Your task to perform on an android device: Show the shopping cart on newegg.com. Image 0: 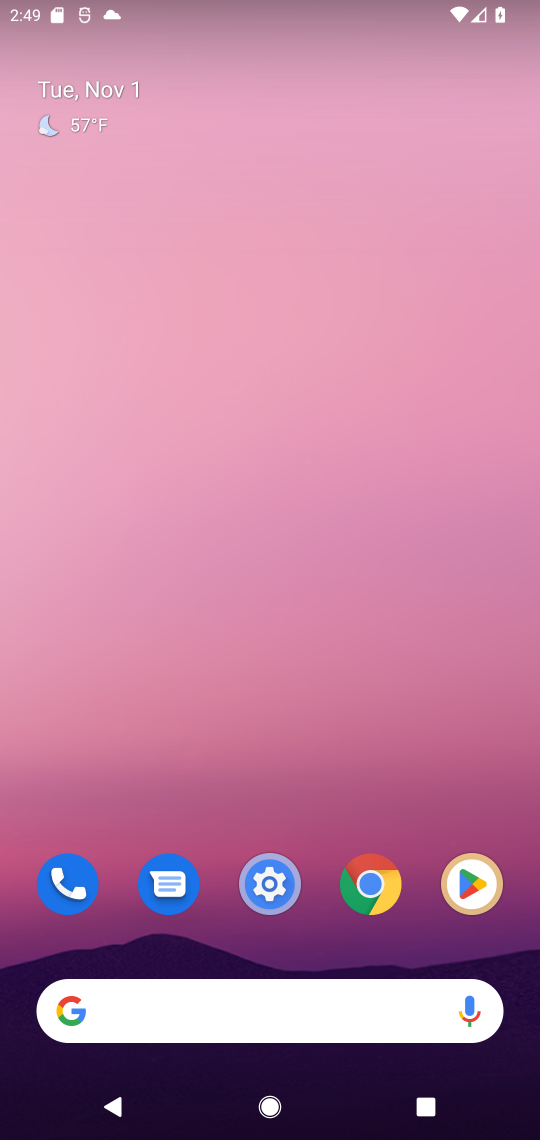
Step 0: press home button
Your task to perform on an android device: Show the shopping cart on newegg.com. Image 1: 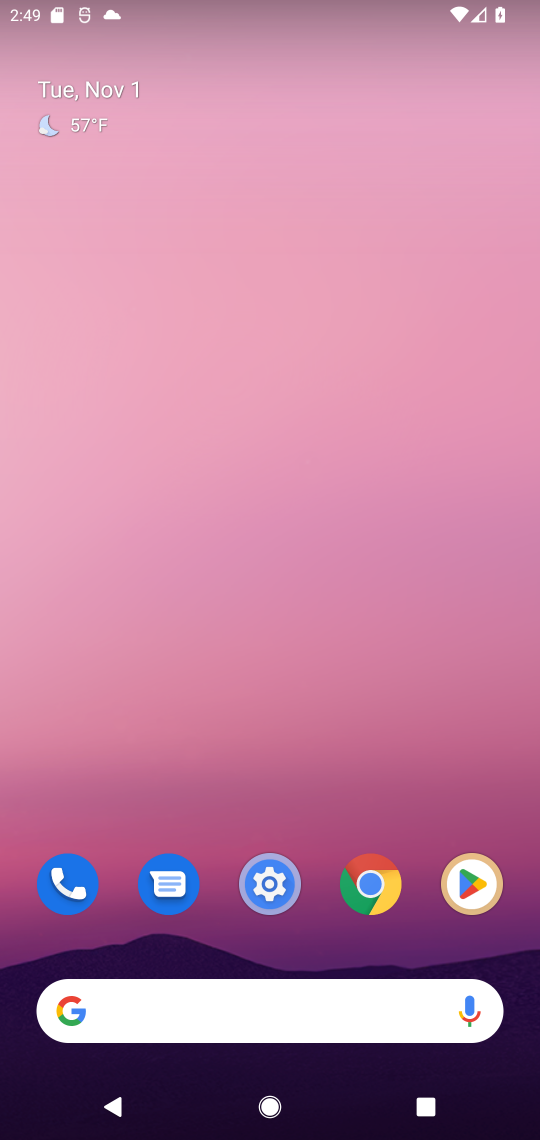
Step 1: click (106, 1012)
Your task to perform on an android device: Show the shopping cart on newegg.com. Image 2: 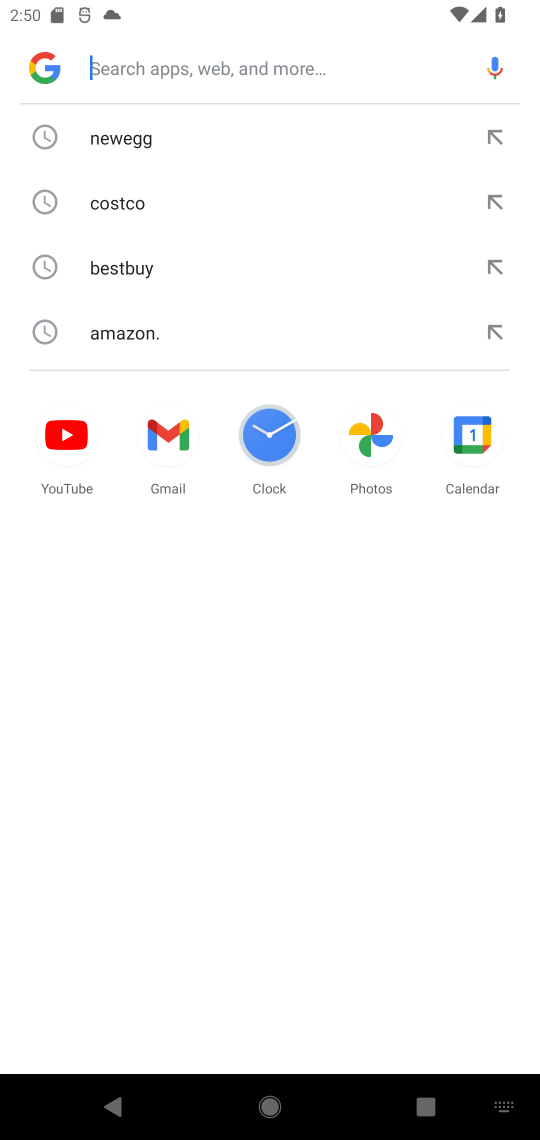
Step 2: type "newegg.com"
Your task to perform on an android device: Show the shopping cart on newegg.com. Image 3: 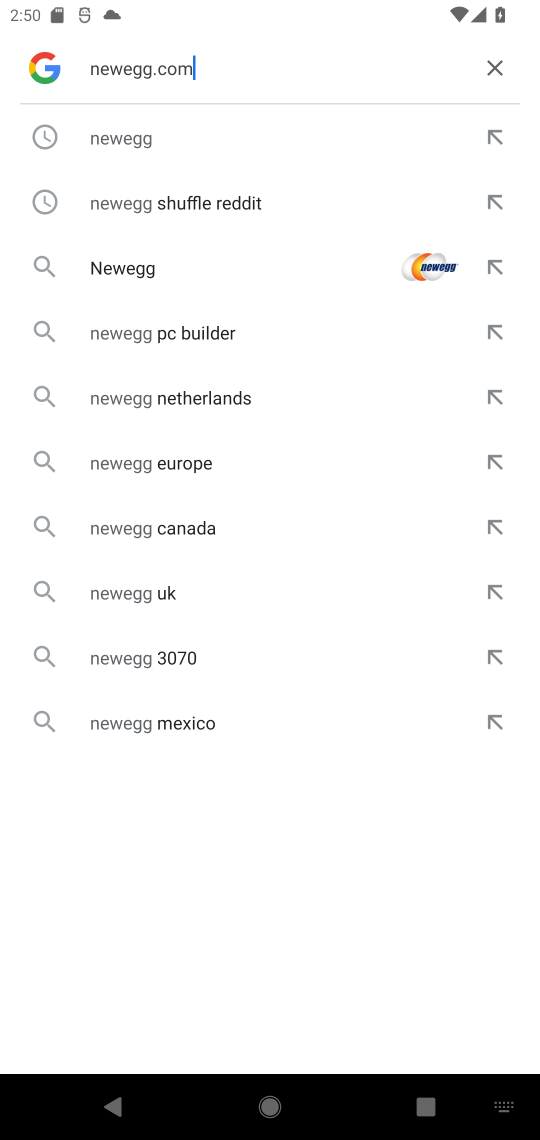
Step 3: press enter
Your task to perform on an android device: Show the shopping cart on newegg.com. Image 4: 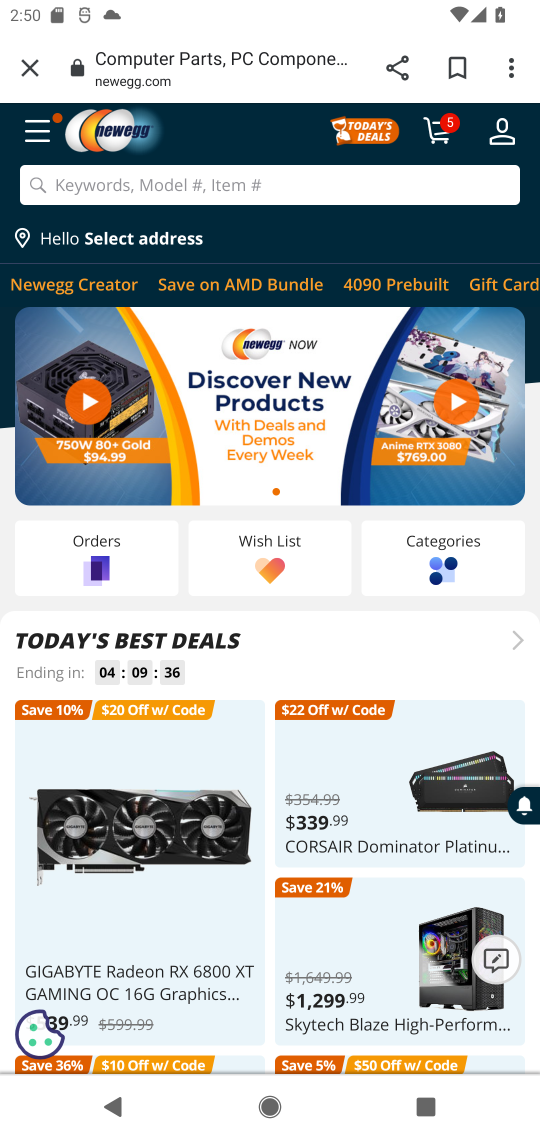
Step 4: click (432, 132)
Your task to perform on an android device: Show the shopping cart on newegg.com. Image 5: 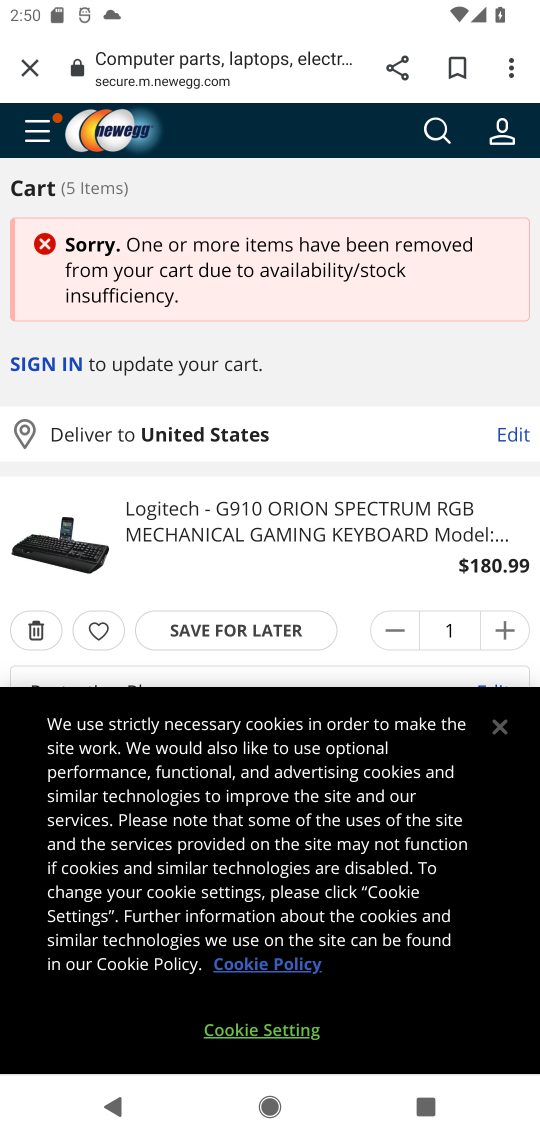
Step 5: task complete